Your task to perform on an android device: open wifi settings Image 0: 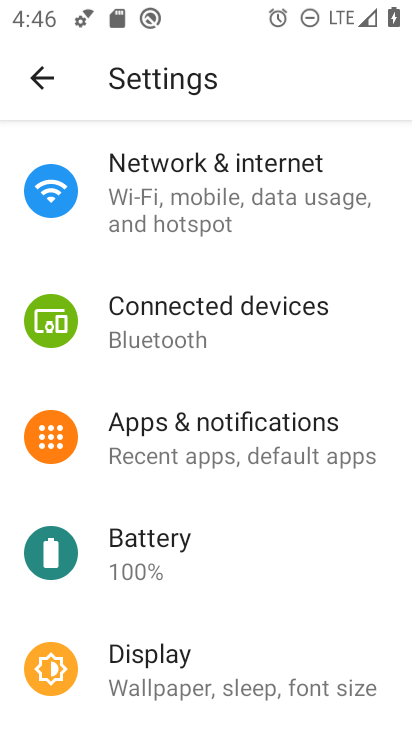
Step 0: drag from (304, 172) to (244, 498)
Your task to perform on an android device: open wifi settings Image 1: 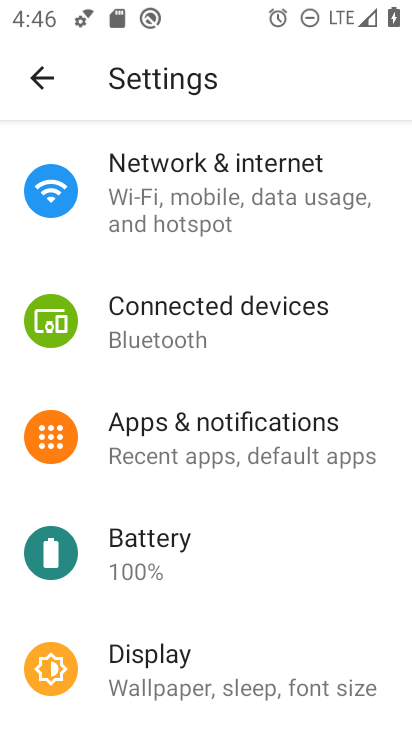
Step 1: click (294, 196)
Your task to perform on an android device: open wifi settings Image 2: 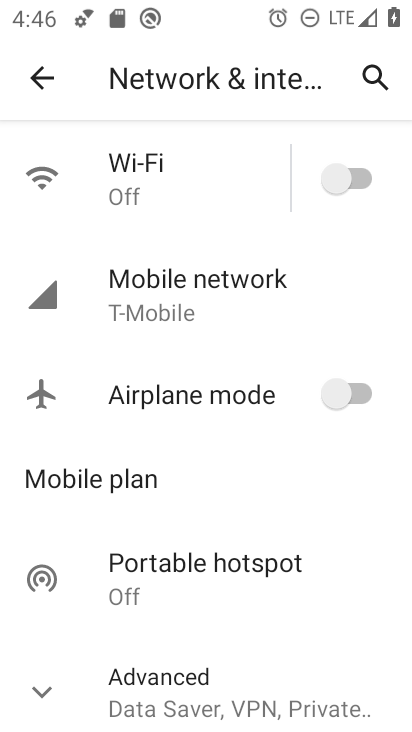
Step 2: click (186, 191)
Your task to perform on an android device: open wifi settings Image 3: 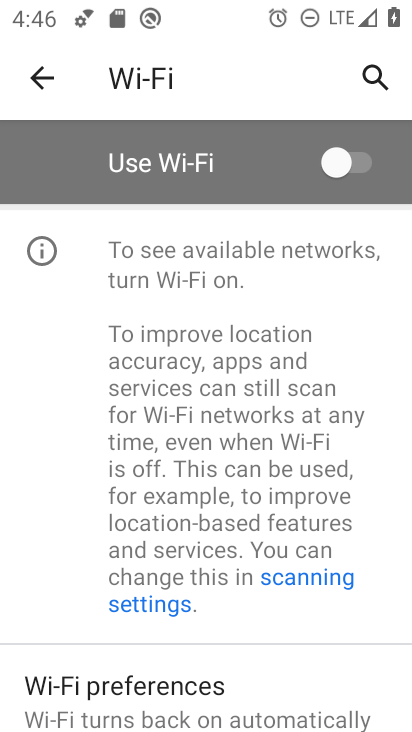
Step 3: click (316, 162)
Your task to perform on an android device: open wifi settings Image 4: 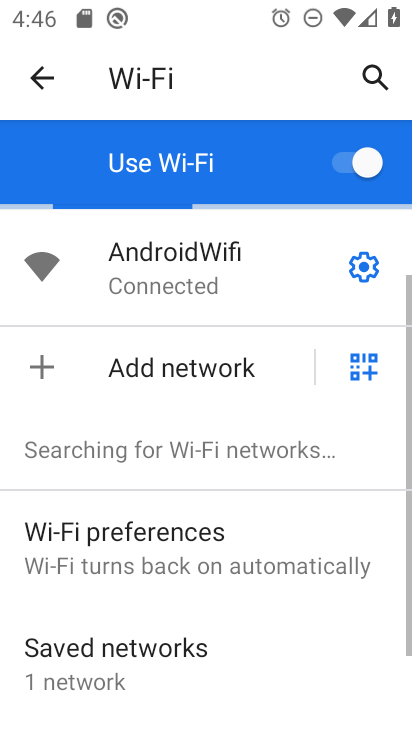
Step 4: click (356, 266)
Your task to perform on an android device: open wifi settings Image 5: 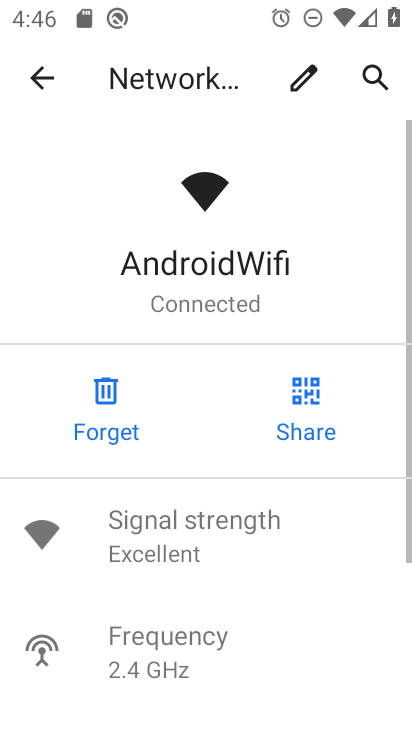
Step 5: task complete